Your task to perform on an android device: turn off sleep mode Image 0: 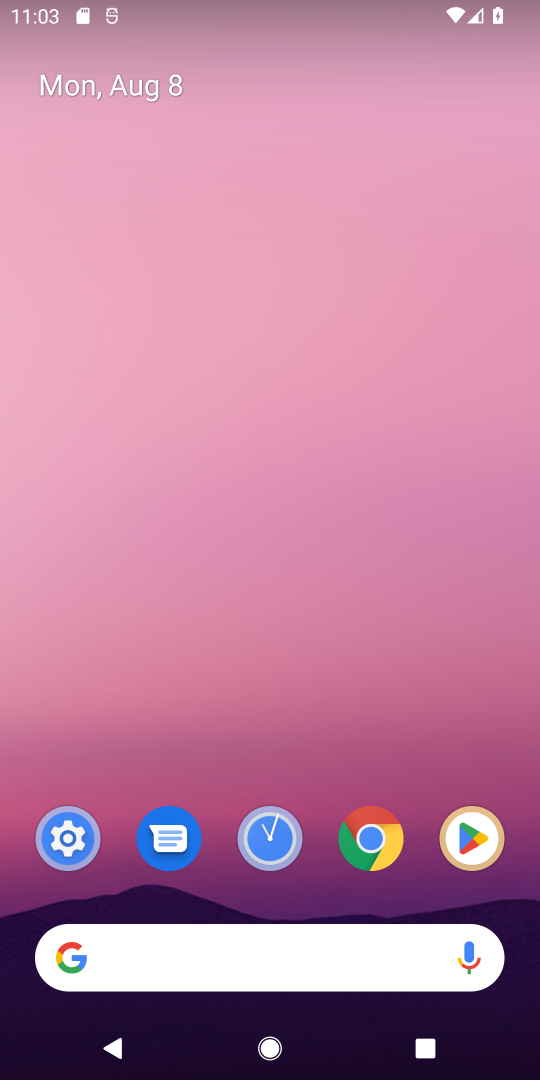
Step 0: drag from (377, 775) to (293, 306)
Your task to perform on an android device: turn off sleep mode Image 1: 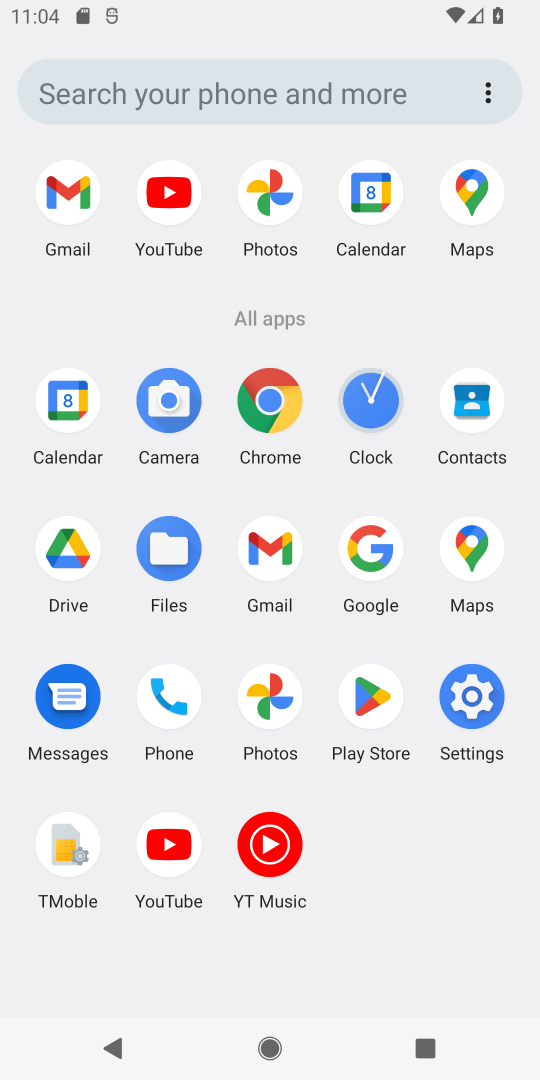
Step 1: click (458, 714)
Your task to perform on an android device: turn off sleep mode Image 2: 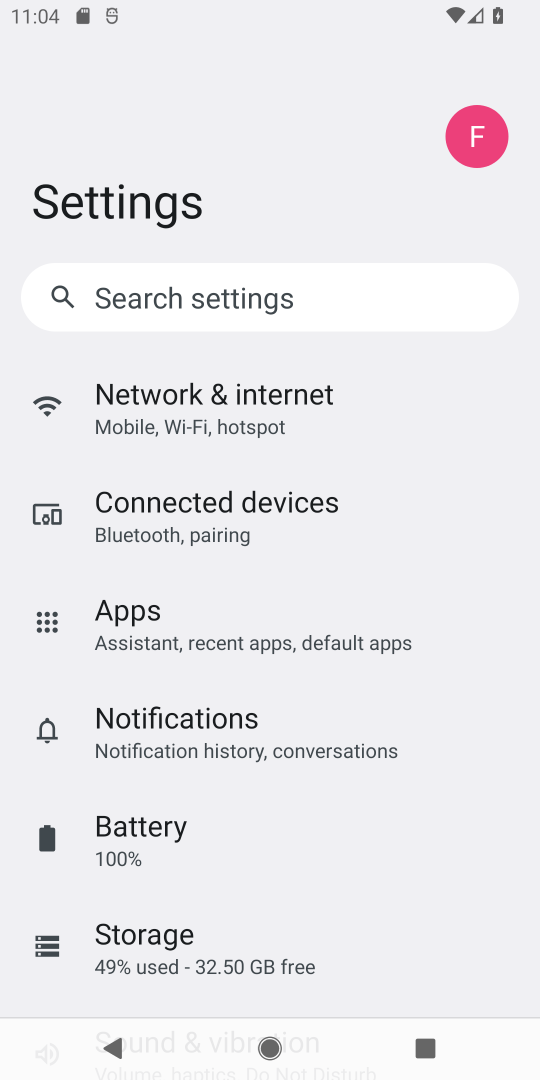
Step 2: drag from (325, 885) to (305, 277)
Your task to perform on an android device: turn off sleep mode Image 3: 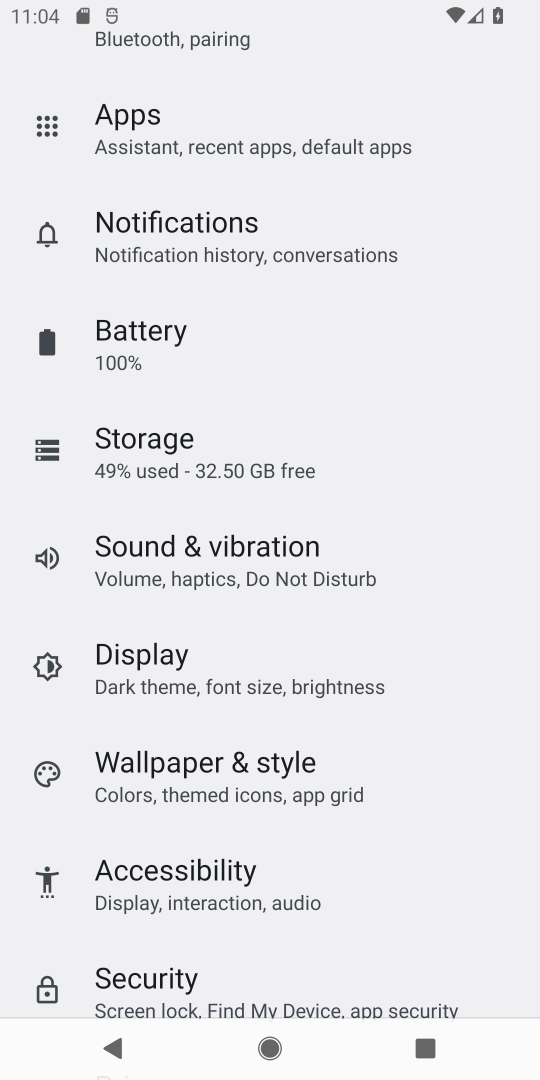
Step 3: click (226, 680)
Your task to perform on an android device: turn off sleep mode Image 4: 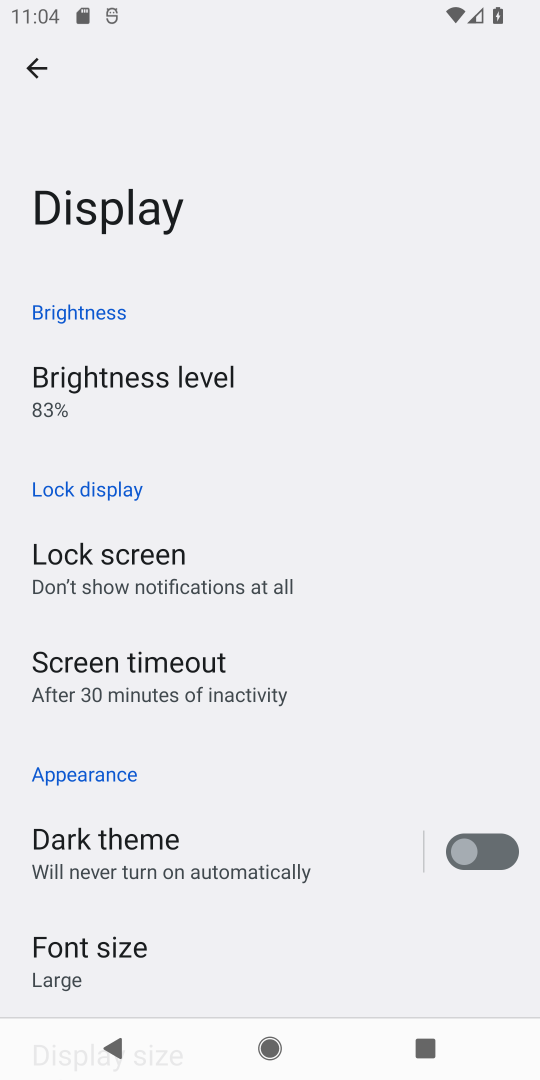
Step 4: task complete